Your task to perform on an android device: Go to Google Image 0: 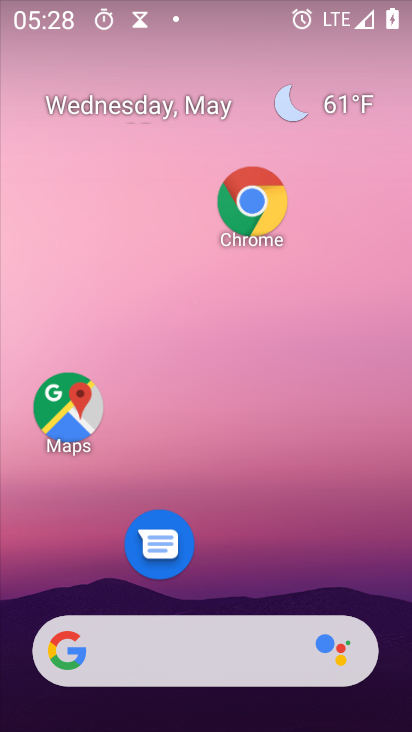
Step 0: drag from (245, 499) to (246, 278)
Your task to perform on an android device: Go to Google Image 1: 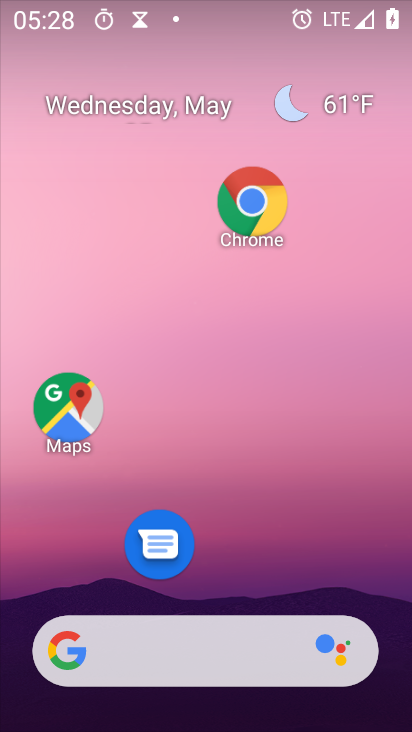
Step 1: drag from (150, 628) to (150, 273)
Your task to perform on an android device: Go to Google Image 2: 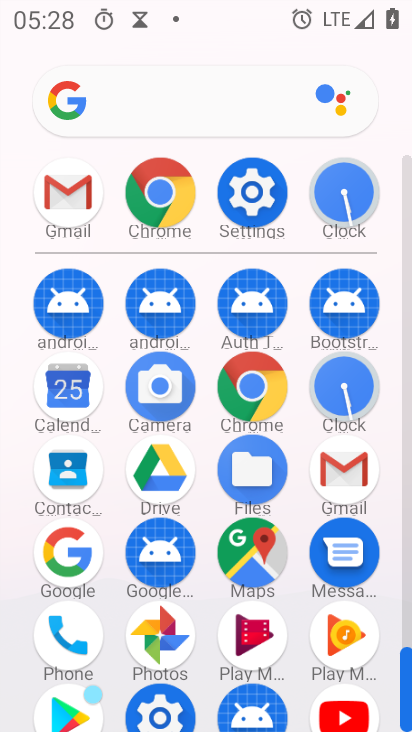
Step 2: click (71, 553)
Your task to perform on an android device: Go to Google Image 3: 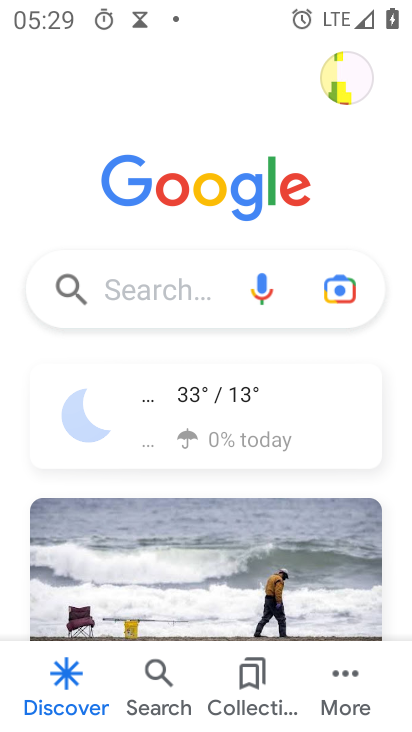
Step 3: task complete